Your task to perform on an android device: Open wifi settings Image 0: 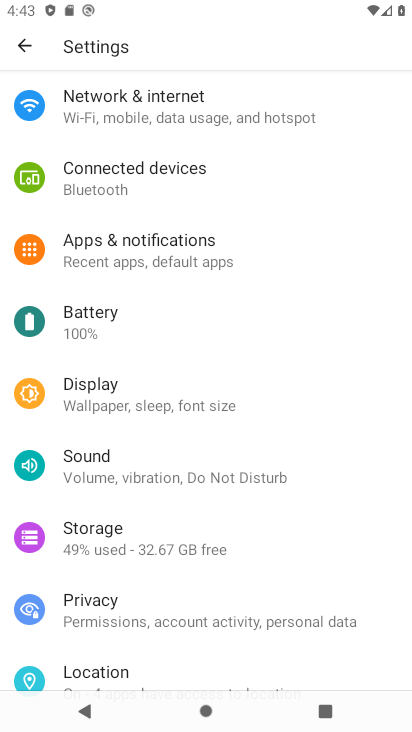
Step 0: click (181, 114)
Your task to perform on an android device: Open wifi settings Image 1: 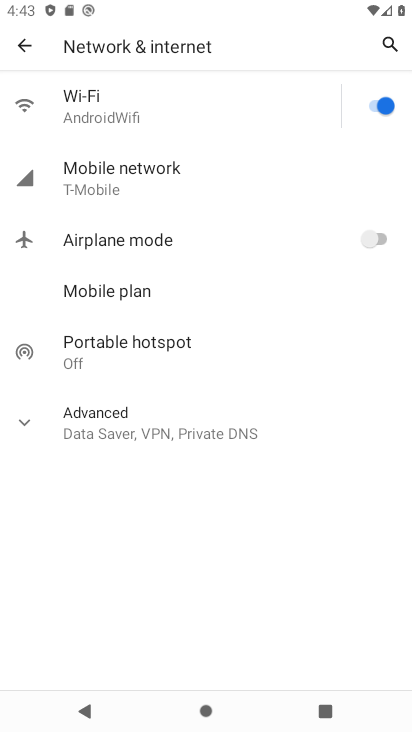
Step 1: click (227, 103)
Your task to perform on an android device: Open wifi settings Image 2: 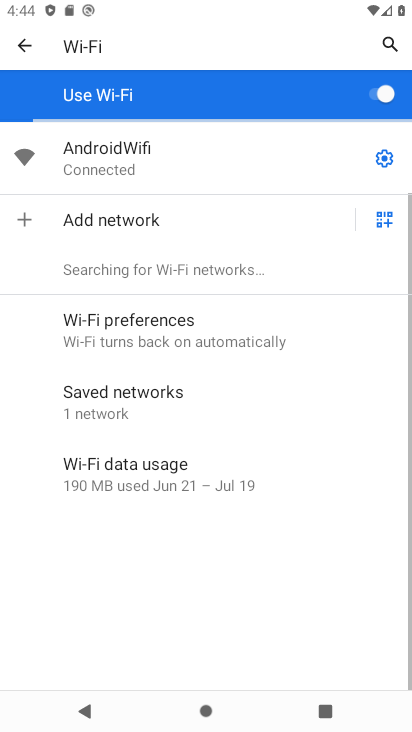
Step 2: click (386, 152)
Your task to perform on an android device: Open wifi settings Image 3: 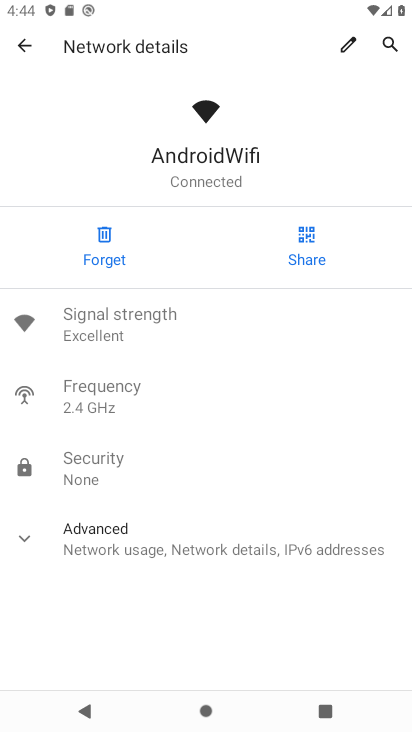
Step 3: task complete